Your task to perform on an android device: turn pop-ups on in chrome Image 0: 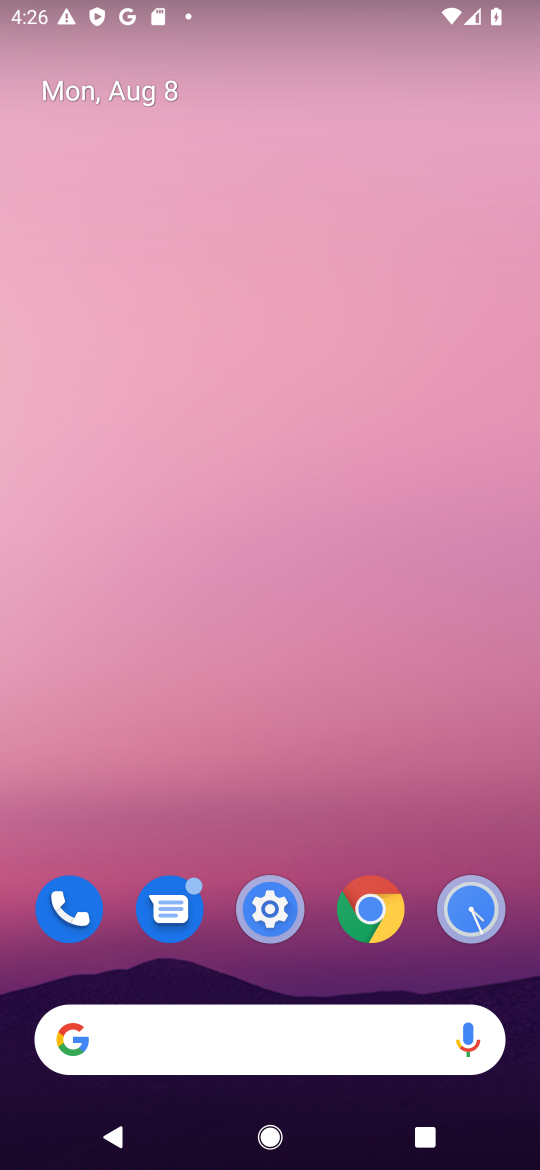
Step 0: click (365, 898)
Your task to perform on an android device: turn pop-ups on in chrome Image 1: 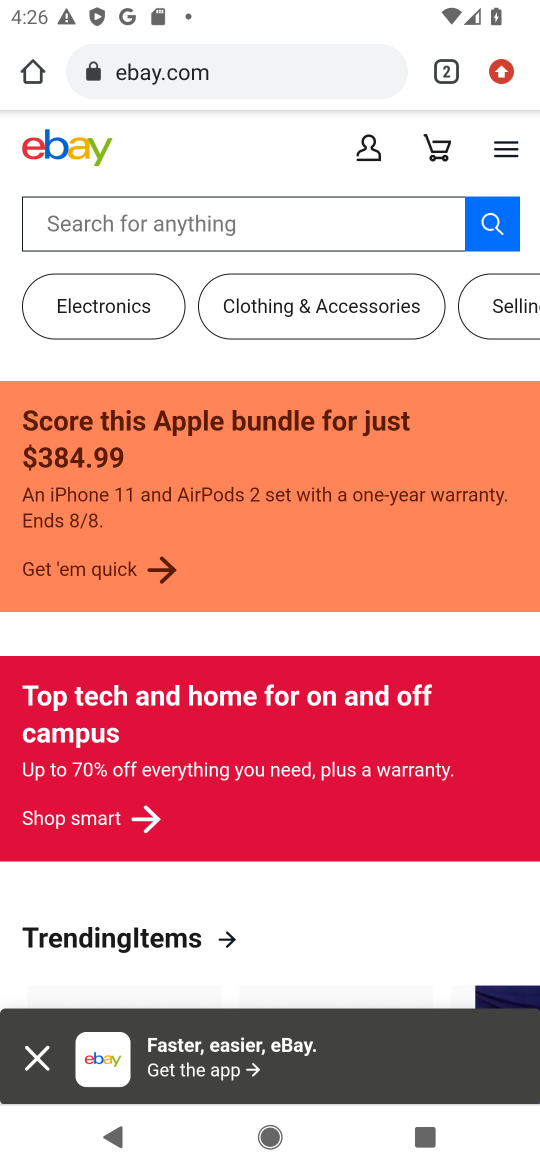
Step 1: drag from (493, 76) to (344, 1017)
Your task to perform on an android device: turn pop-ups on in chrome Image 2: 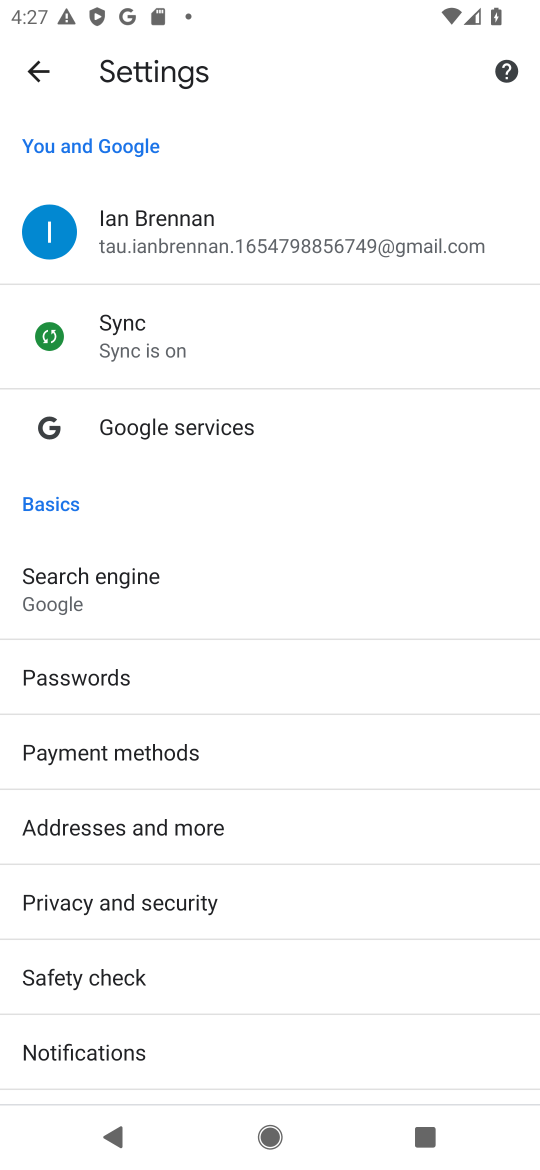
Step 2: drag from (256, 1032) to (468, 277)
Your task to perform on an android device: turn pop-ups on in chrome Image 3: 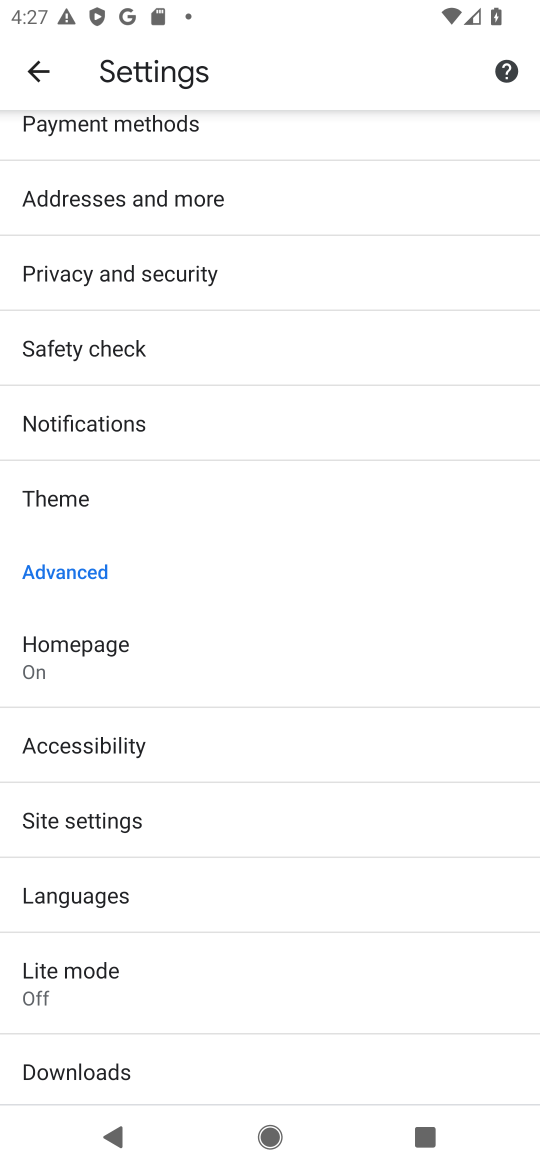
Step 3: click (154, 820)
Your task to perform on an android device: turn pop-ups on in chrome Image 4: 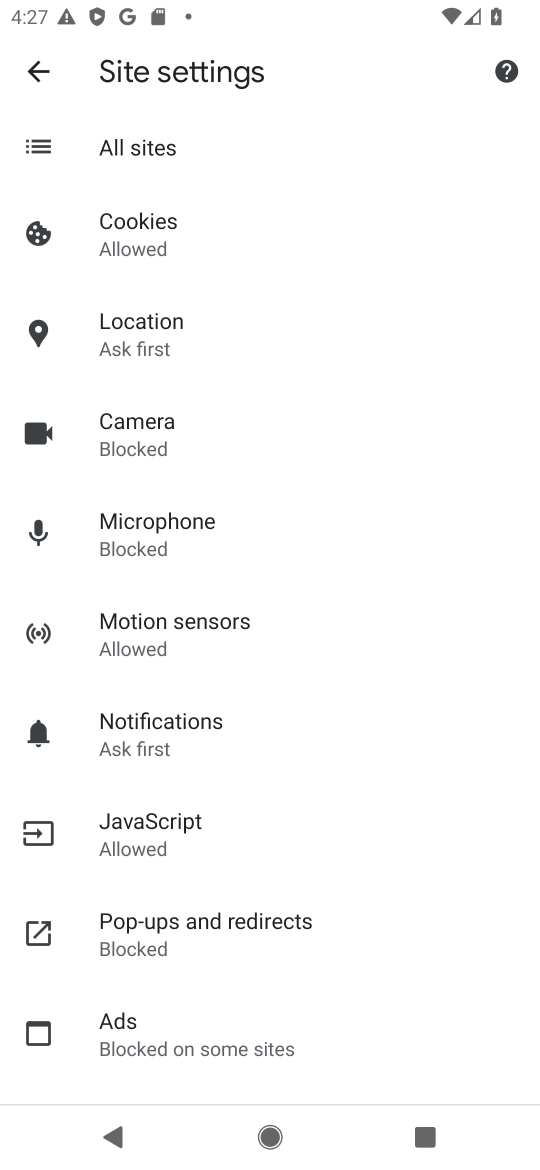
Step 4: click (188, 929)
Your task to perform on an android device: turn pop-ups on in chrome Image 5: 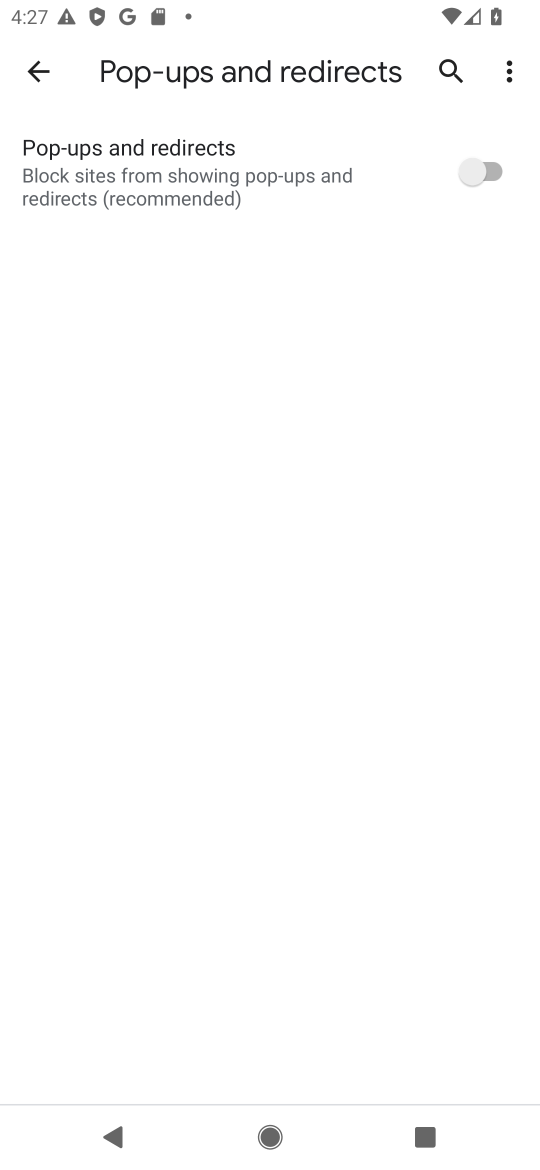
Step 5: click (488, 175)
Your task to perform on an android device: turn pop-ups on in chrome Image 6: 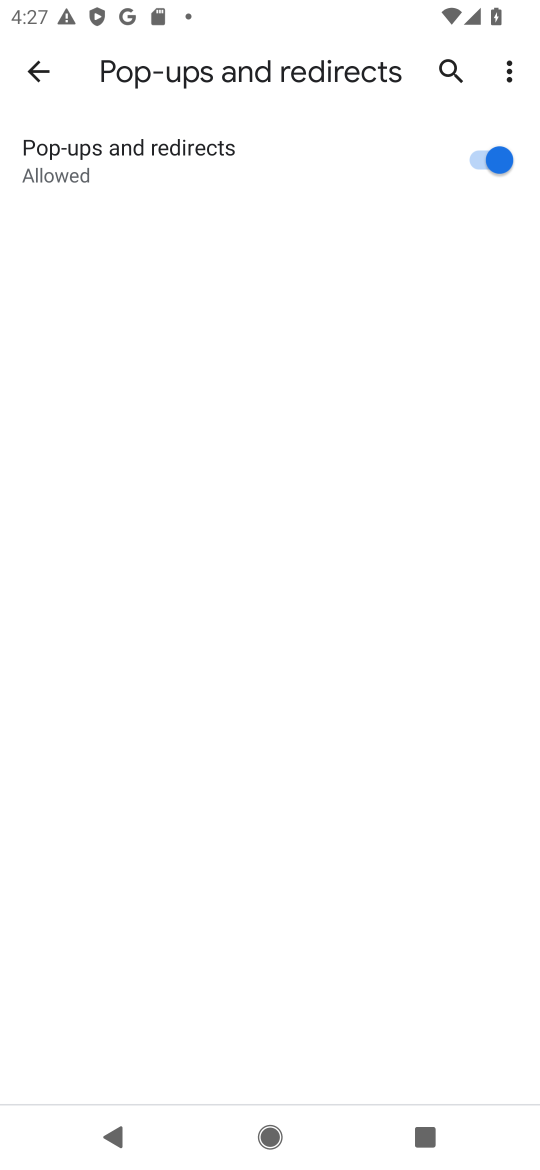
Step 6: task complete